Your task to perform on an android device: add a label to a message in the gmail app Image 0: 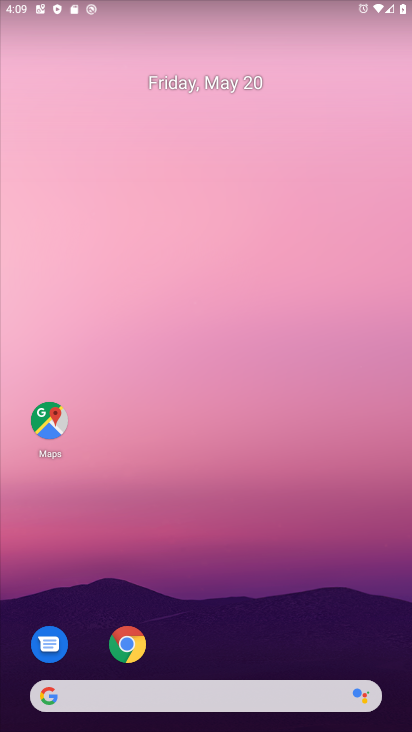
Step 0: drag from (295, 642) to (305, 52)
Your task to perform on an android device: add a label to a message in the gmail app Image 1: 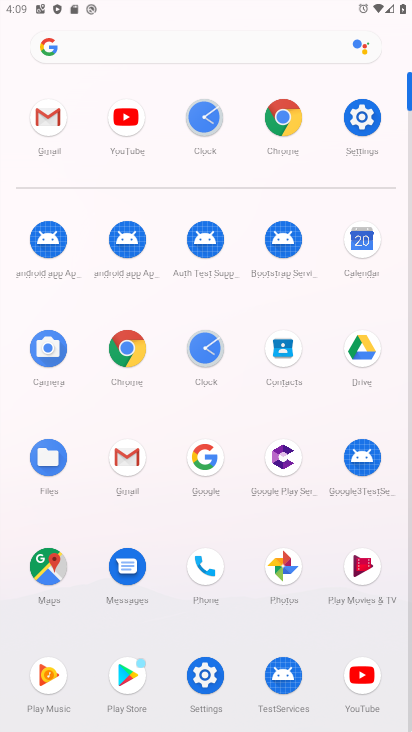
Step 1: click (39, 138)
Your task to perform on an android device: add a label to a message in the gmail app Image 2: 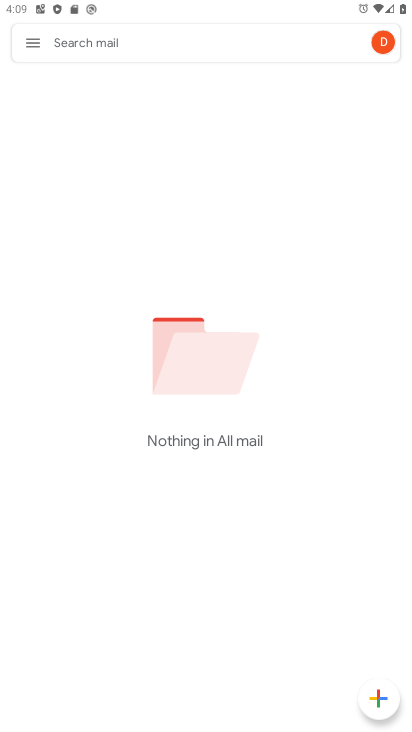
Step 2: click (31, 44)
Your task to perform on an android device: add a label to a message in the gmail app Image 3: 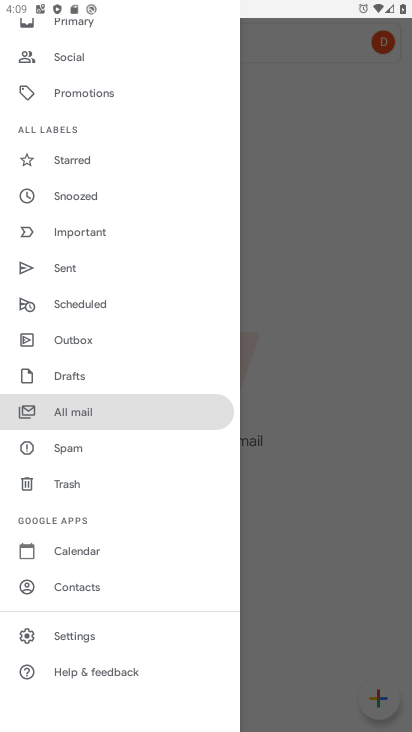
Step 3: task complete